Your task to perform on an android device: Open Wikipedia Image 0: 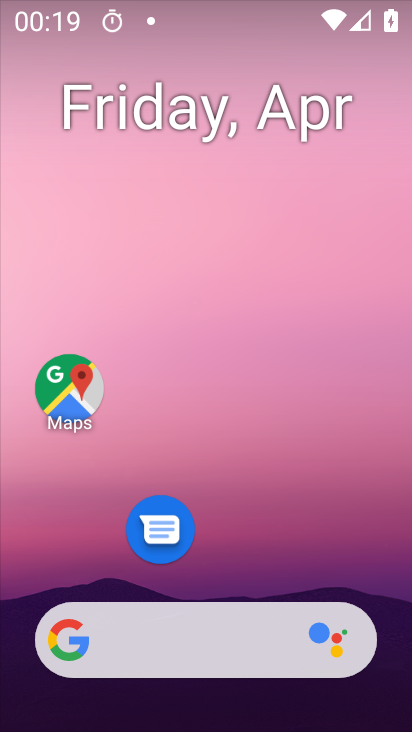
Step 0: drag from (231, 516) to (280, 201)
Your task to perform on an android device: Open Wikipedia Image 1: 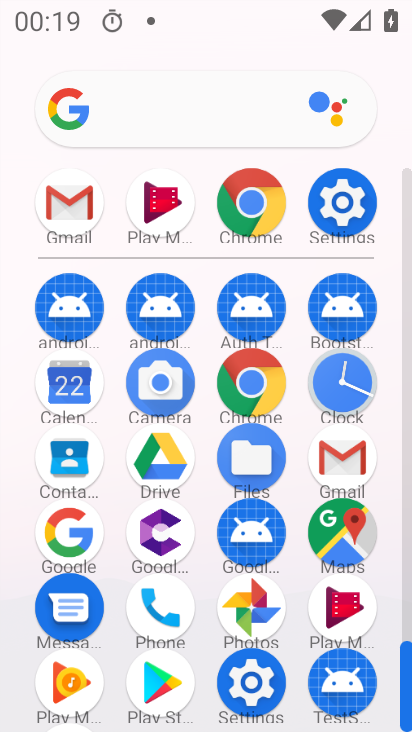
Step 1: click (256, 219)
Your task to perform on an android device: Open Wikipedia Image 2: 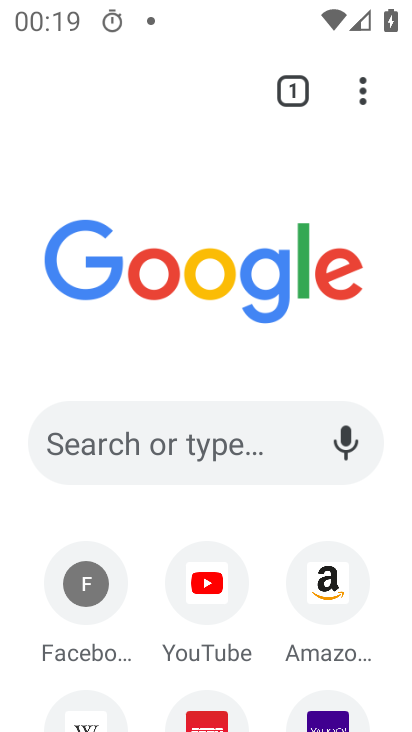
Step 2: click (164, 427)
Your task to perform on an android device: Open Wikipedia Image 3: 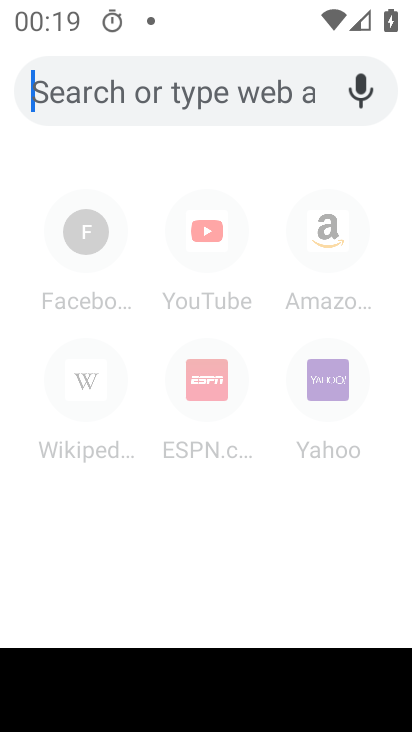
Step 3: type "wikipedia.org"
Your task to perform on an android device: Open Wikipedia Image 4: 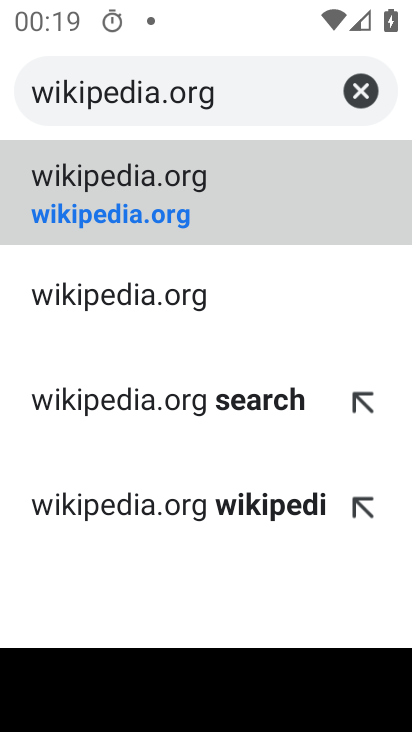
Step 4: click (235, 217)
Your task to perform on an android device: Open Wikipedia Image 5: 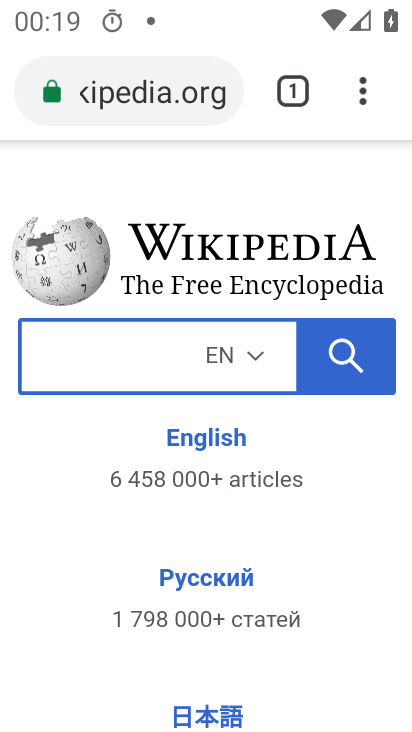
Step 5: task complete